Your task to perform on an android device: check data usage Image 0: 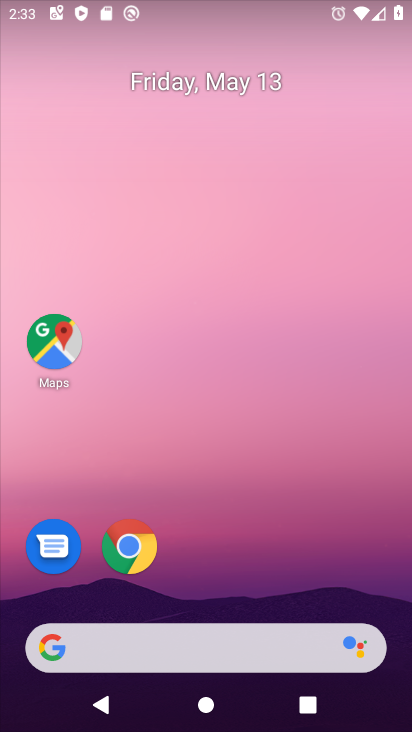
Step 0: drag from (276, 564) to (288, 99)
Your task to perform on an android device: check data usage Image 1: 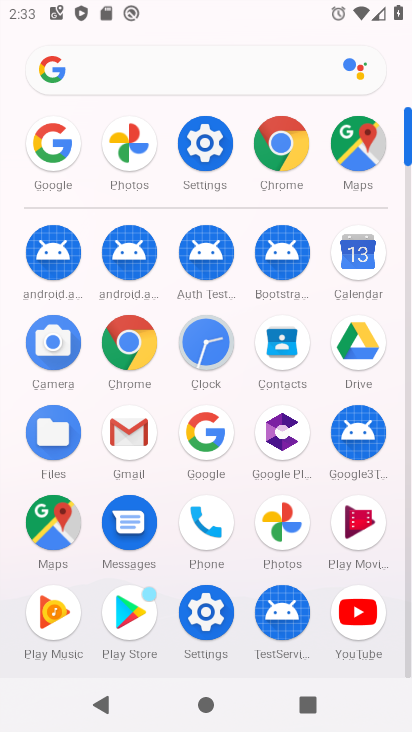
Step 1: click (200, 146)
Your task to perform on an android device: check data usage Image 2: 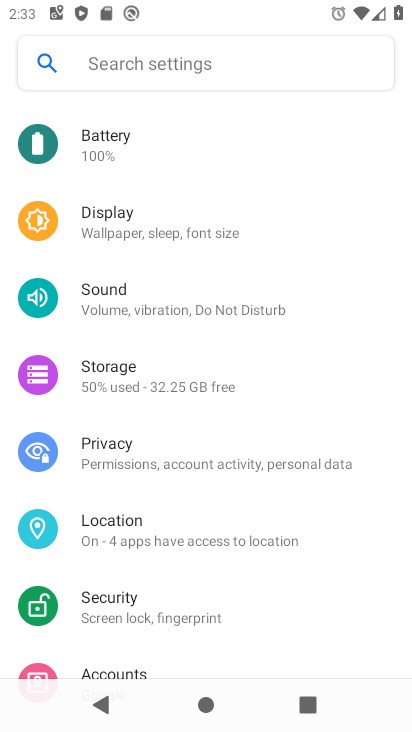
Step 2: drag from (186, 598) to (181, 635)
Your task to perform on an android device: check data usage Image 3: 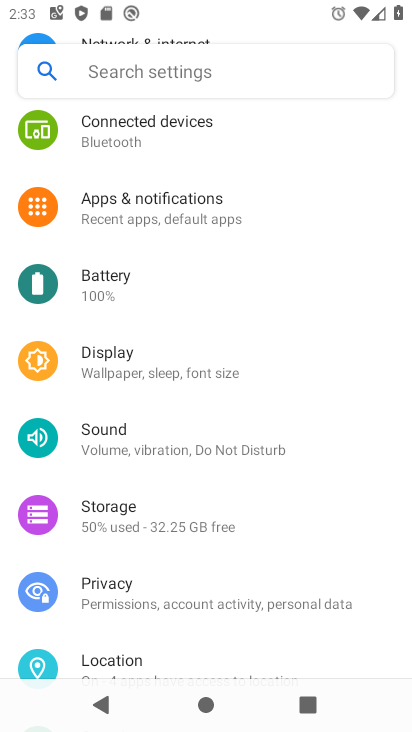
Step 3: drag from (209, 185) to (193, 550)
Your task to perform on an android device: check data usage Image 4: 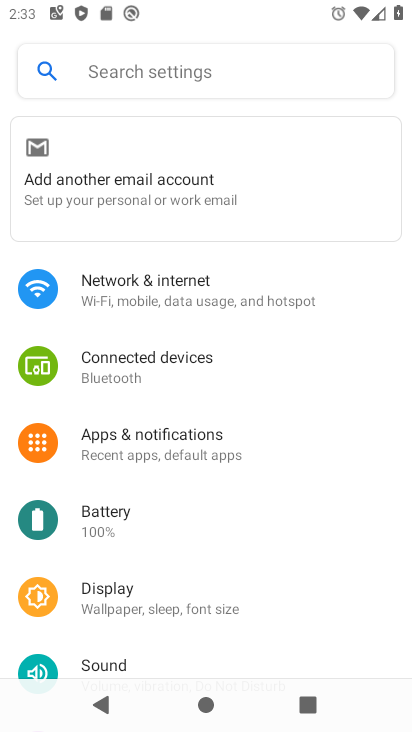
Step 4: click (185, 284)
Your task to perform on an android device: check data usage Image 5: 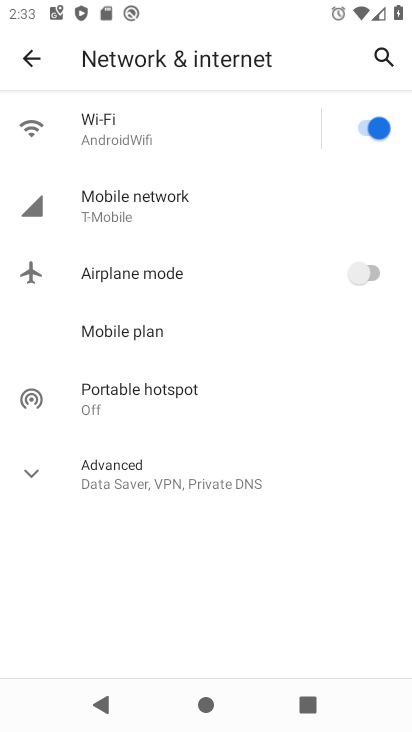
Step 5: click (145, 209)
Your task to perform on an android device: check data usage Image 6: 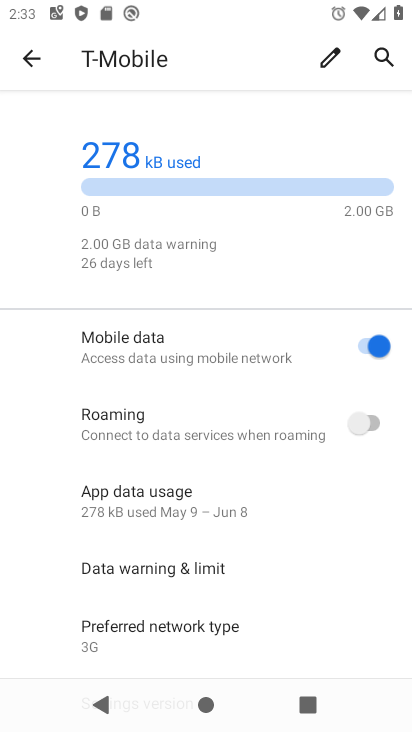
Step 6: task complete